Your task to perform on an android device: What is the news today? Image 0: 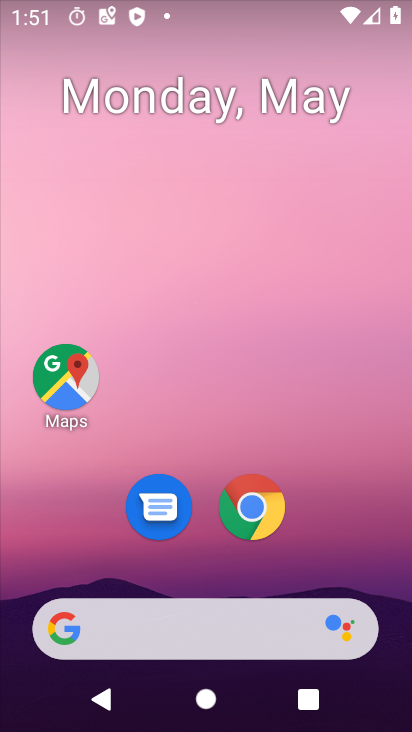
Step 0: drag from (337, 572) to (329, 169)
Your task to perform on an android device: What is the news today? Image 1: 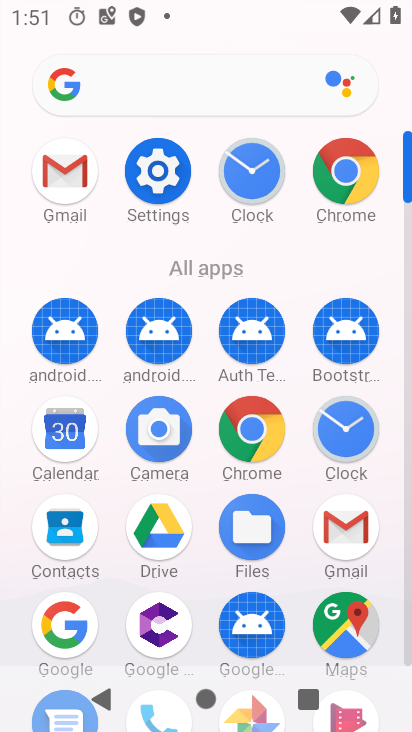
Step 1: click (263, 405)
Your task to perform on an android device: What is the news today? Image 2: 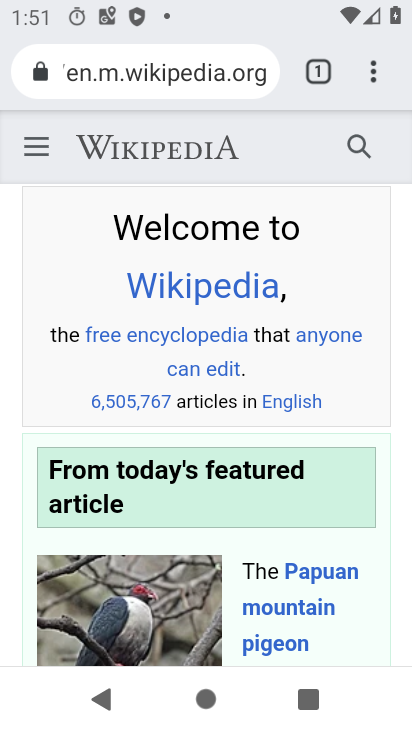
Step 2: click (170, 66)
Your task to perform on an android device: What is the news today? Image 3: 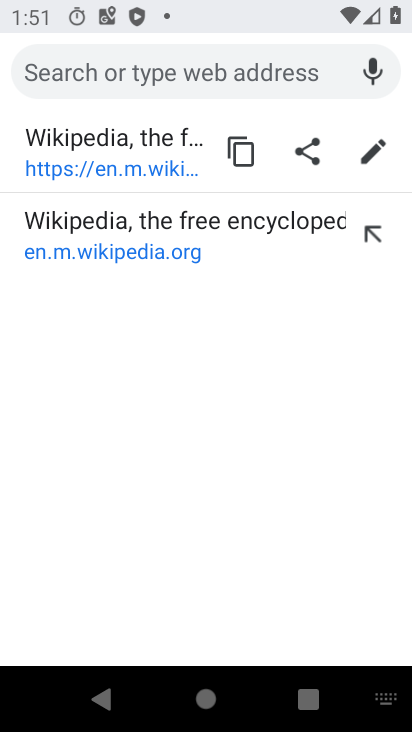
Step 3: type "what is the news today"
Your task to perform on an android device: What is the news today? Image 4: 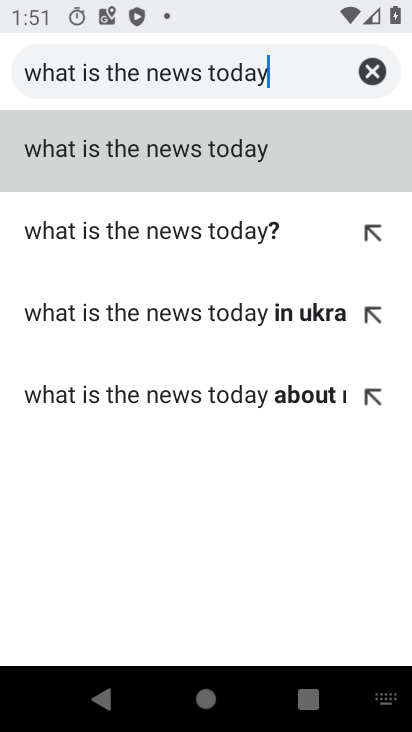
Step 4: click (191, 122)
Your task to perform on an android device: What is the news today? Image 5: 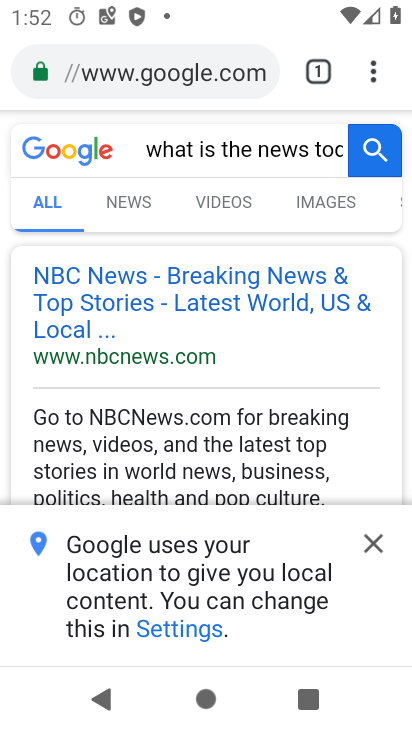
Step 5: click (365, 551)
Your task to perform on an android device: What is the news today? Image 6: 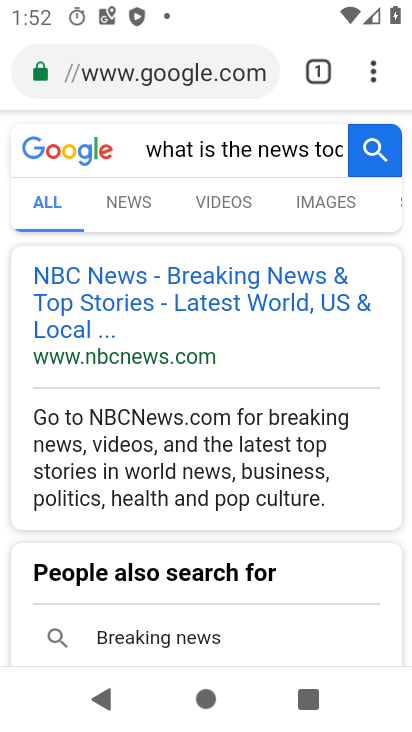
Step 6: task complete